Your task to perform on an android device: read, delete, or share a saved page in the chrome app Image 0: 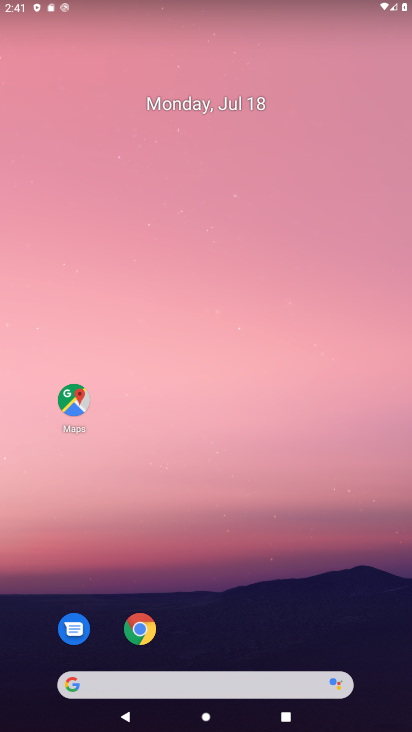
Step 0: click (137, 628)
Your task to perform on an android device: read, delete, or share a saved page in the chrome app Image 1: 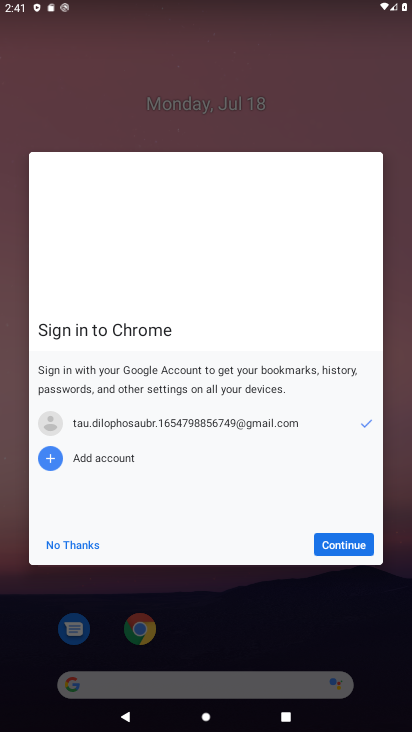
Step 1: click (139, 626)
Your task to perform on an android device: read, delete, or share a saved page in the chrome app Image 2: 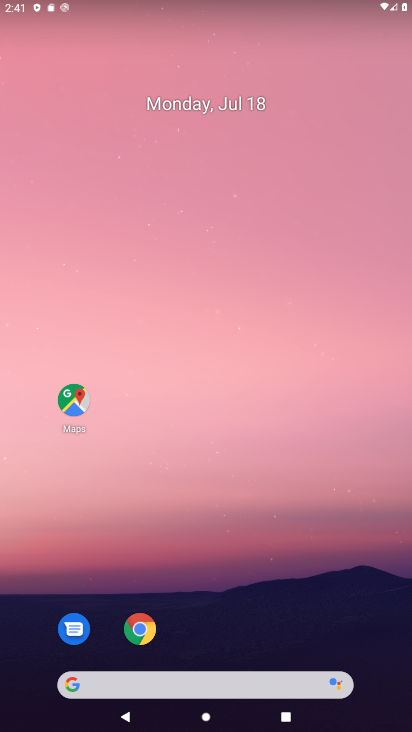
Step 2: click (332, 537)
Your task to perform on an android device: read, delete, or share a saved page in the chrome app Image 3: 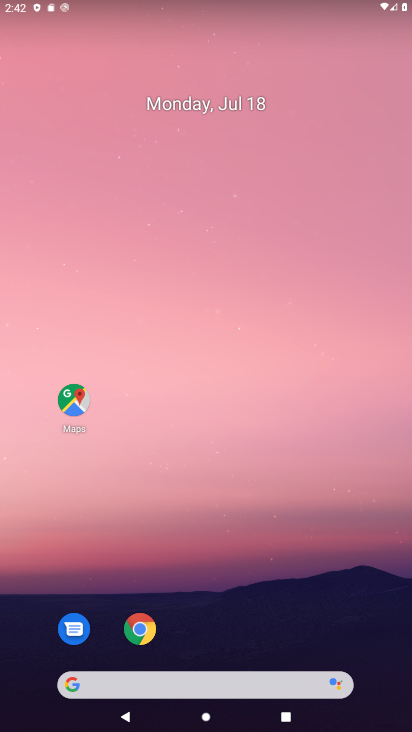
Step 3: click (140, 624)
Your task to perform on an android device: read, delete, or share a saved page in the chrome app Image 4: 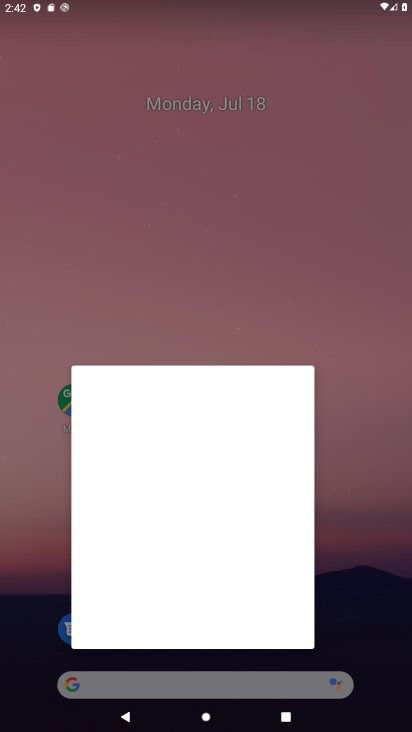
Step 4: click (142, 625)
Your task to perform on an android device: read, delete, or share a saved page in the chrome app Image 5: 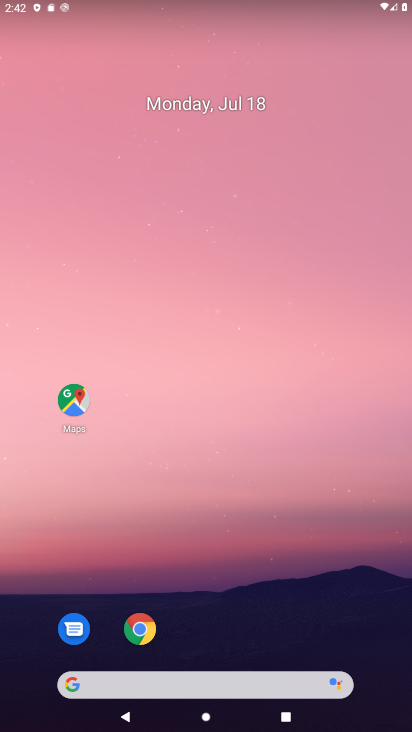
Step 5: click (144, 628)
Your task to perform on an android device: read, delete, or share a saved page in the chrome app Image 6: 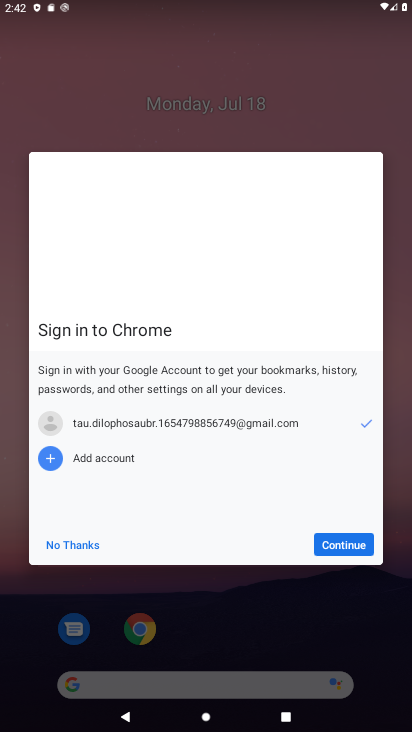
Step 6: click (352, 538)
Your task to perform on an android device: read, delete, or share a saved page in the chrome app Image 7: 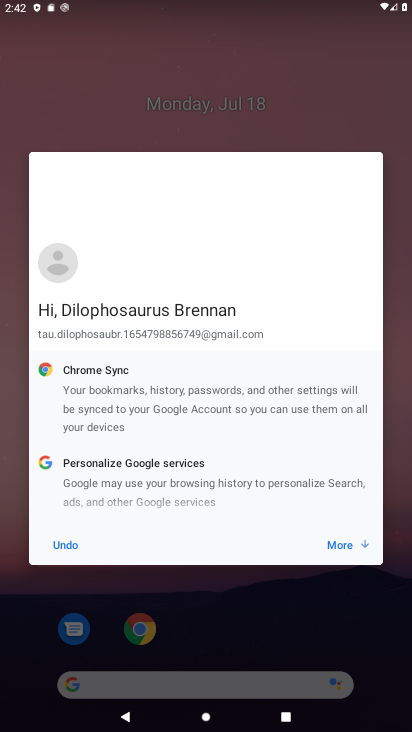
Step 7: click (352, 538)
Your task to perform on an android device: read, delete, or share a saved page in the chrome app Image 8: 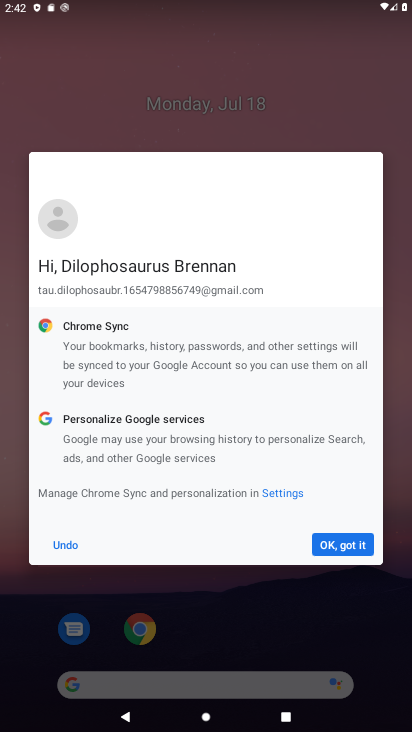
Step 8: click (352, 538)
Your task to perform on an android device: read, delete, or share a saved page in the chrome app Image 9: 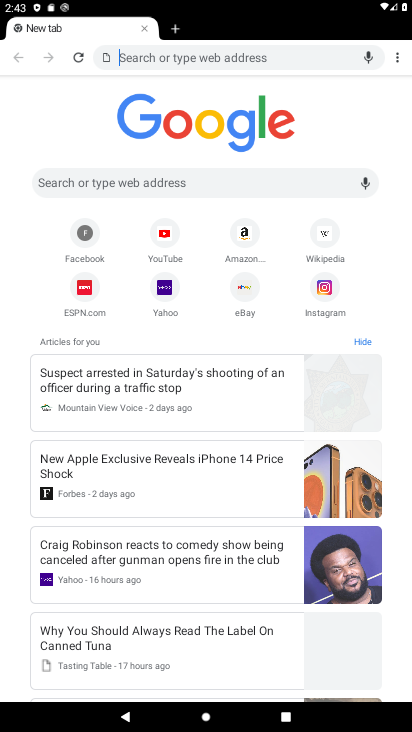
Step 9: click (392, 56)
Your task to perform on an android device: read, delete, or share a saved page in the chrome app Image 10: 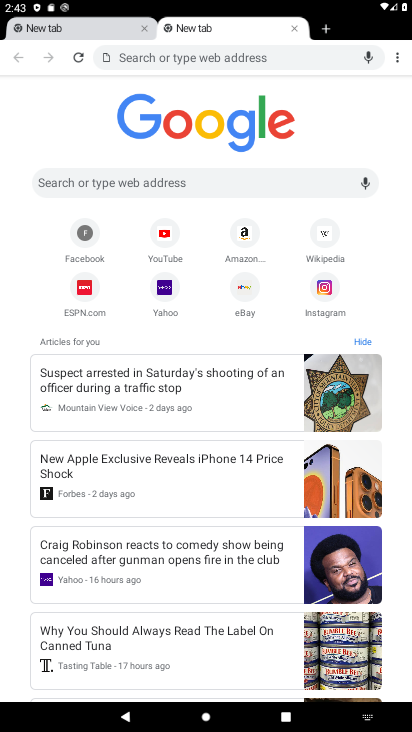
Step 10: click (392, 56)
Your task to perform on an android device: read, delete, or share a saved page in the chrome app Image 11: 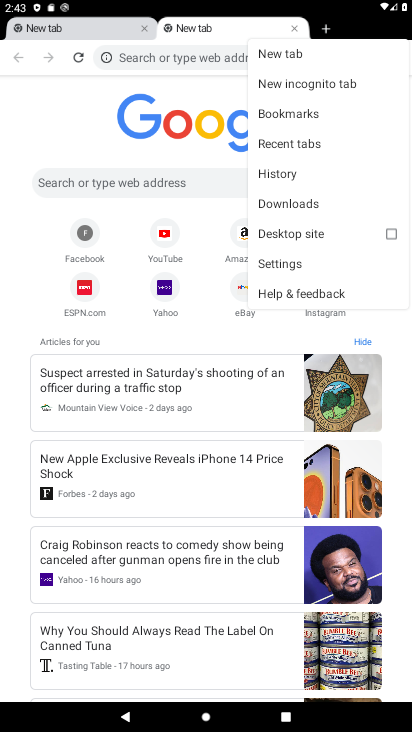
Step 11: click (286, 264)
Your task to perform on an android device: read, delete, or share a saved page in the chrome app Image 12: 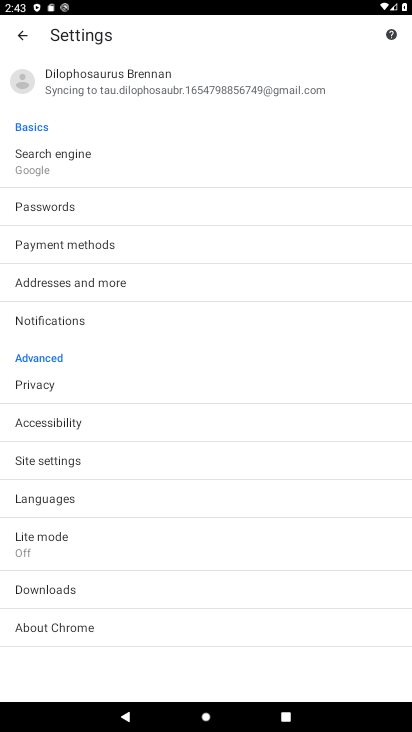
Step 12: click (21, 32)
Your task to perform on an android device: read, delete, or share a saved page in the chrome app Image 13: 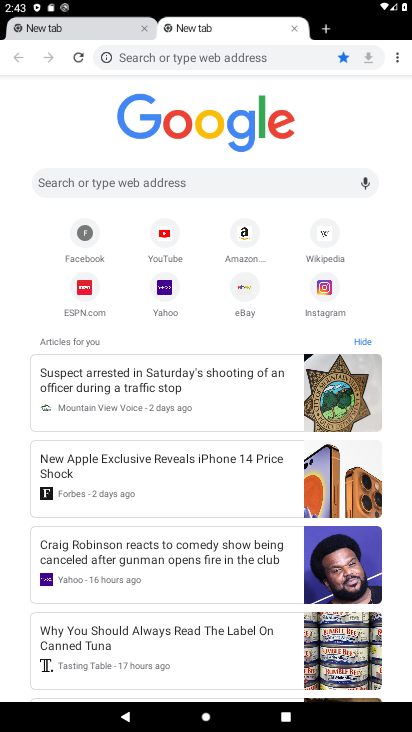
Step 13: click (397, 57)
Your task to perform on an android device: read, delete, or share a saved page in the chrome app Image 14: 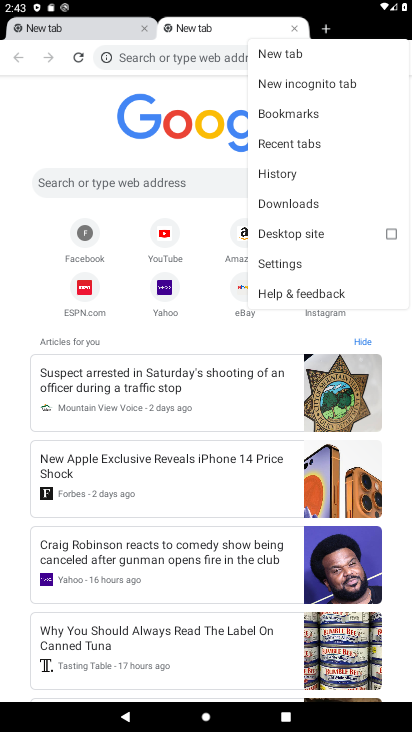
Step 14: click (273, 202)
Your task to perform on an android device: read, delete, or share a saved page in the chrome app Image 15: 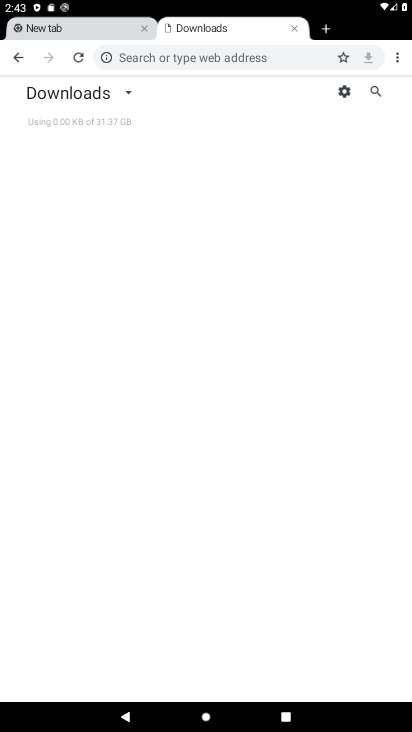
Step 15: task complete